Your task to perform on an android device: toggle airplane mode Image 0: 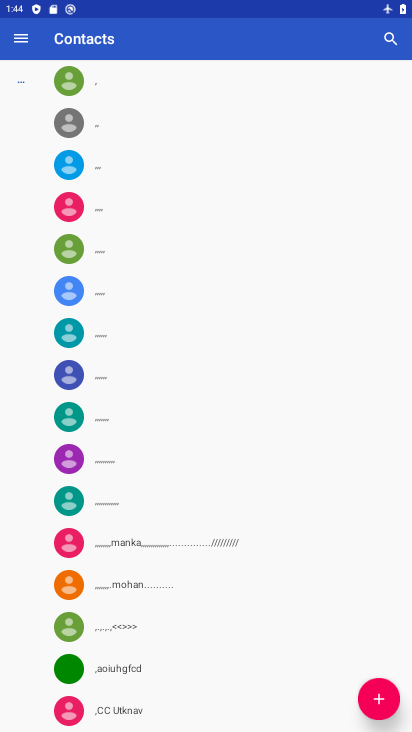
Step 0: press back button
Your task to perform on an android device: toggle airplane mode Image 1: 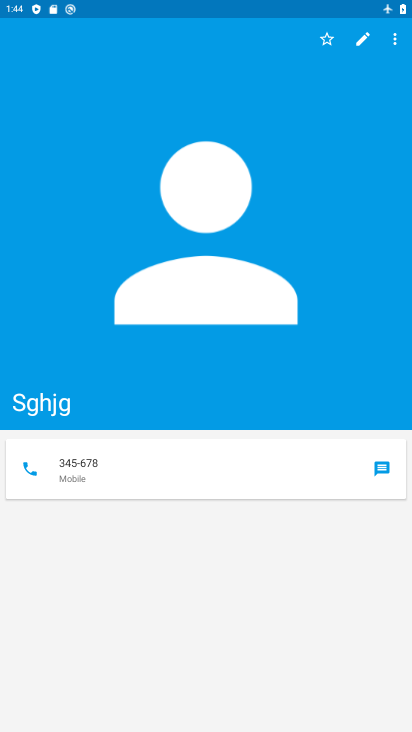
Step 1: press back button
Your task to perform on an android device: toggle airplane mode Image 2: 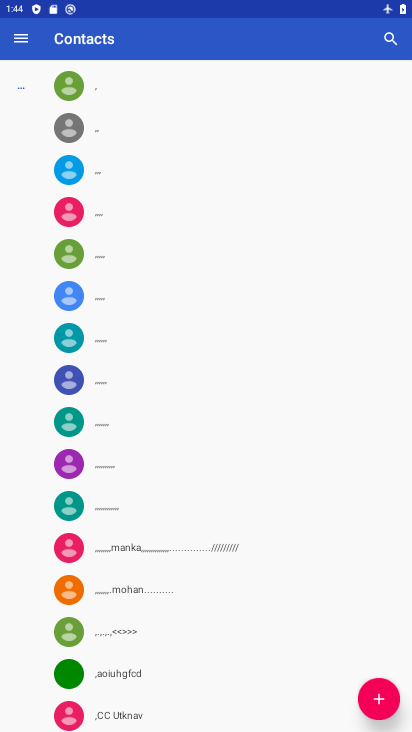
Step 2: press home button
Your task to perform on an android device: toggle airplane mode Image 3: 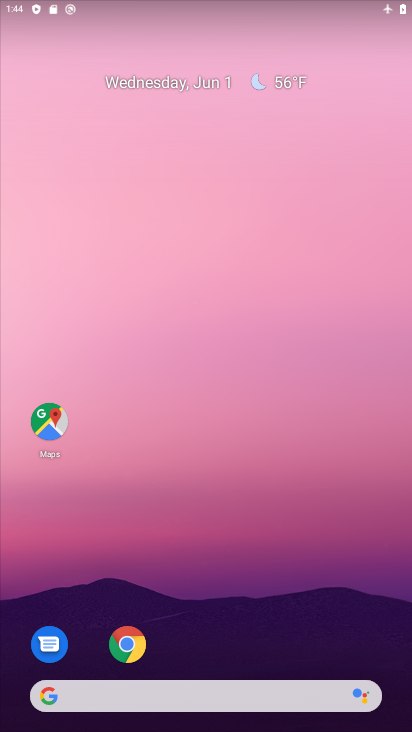
Step 3: drag from (278, 641) to (273, 40)
Your task to perform on an android device: toggle airplane mode Image 4: 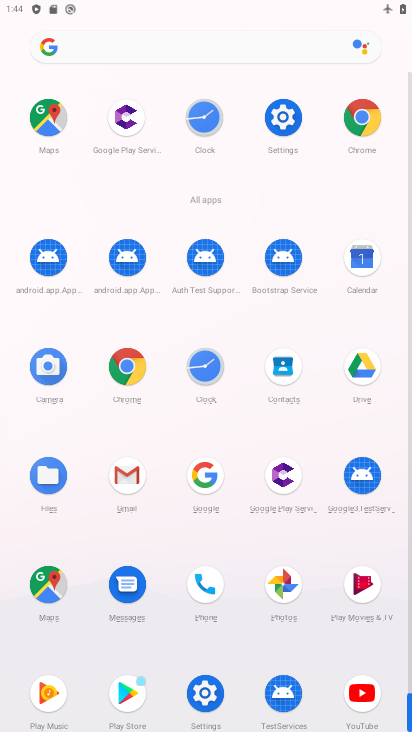
Step 4: click (202, 688)
Your task to perform on an android device: toggle airplane mode Image 5: 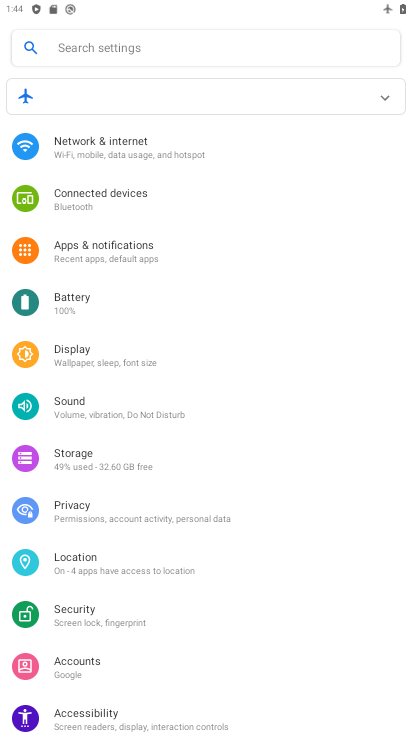
Step 5: click (169, 145)
Your task to perform on an android device: toggle airplane mode Image 6: 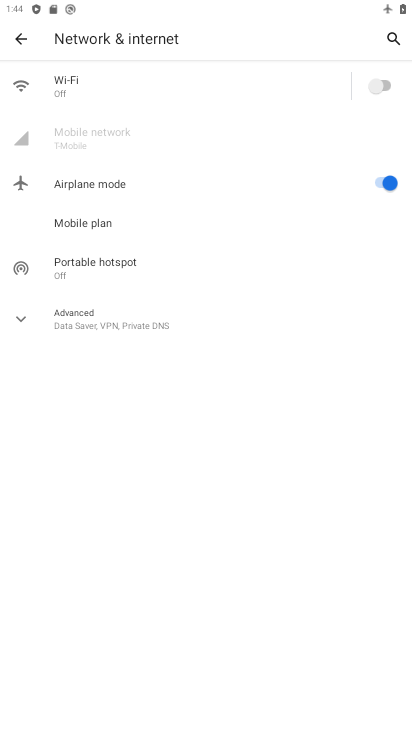
Step 6: click (387, 183)
Your task to perform on an android device: toggle airplane mode Image 7: 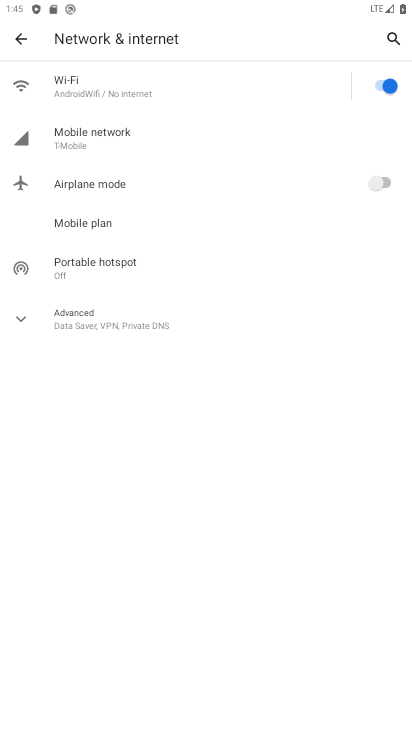
Step 7: click (22, 313)
Your task to perform on an android device: toggle airplane mode Image 8: 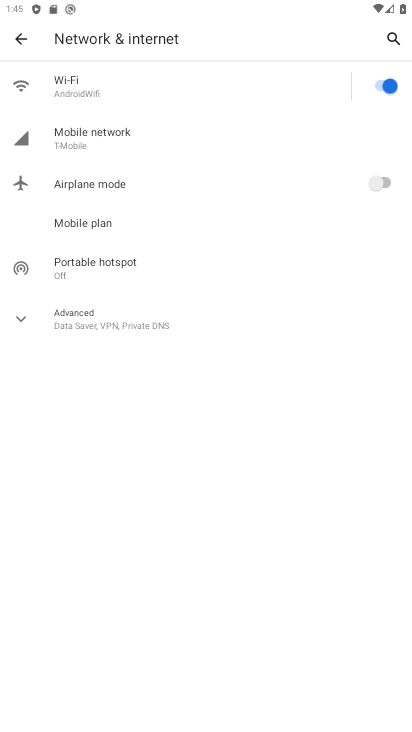
Step 8: click (25, 322)
Your task to perform on an android device: toggle airplane mode Image 9: 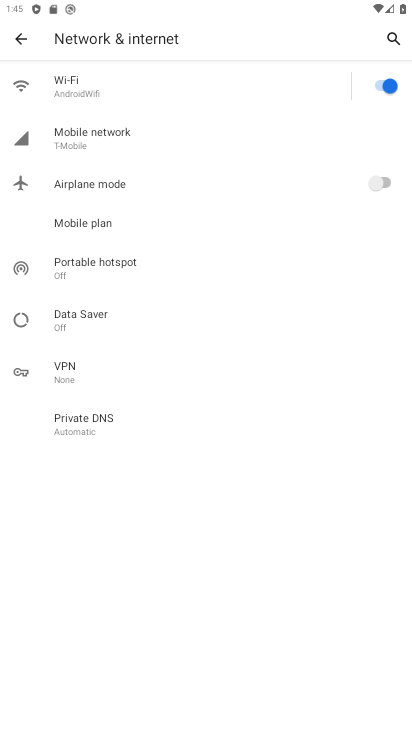
Step 9: click (374, 178)
Your task to perform on an android device: toggle airplane mode Image 10: 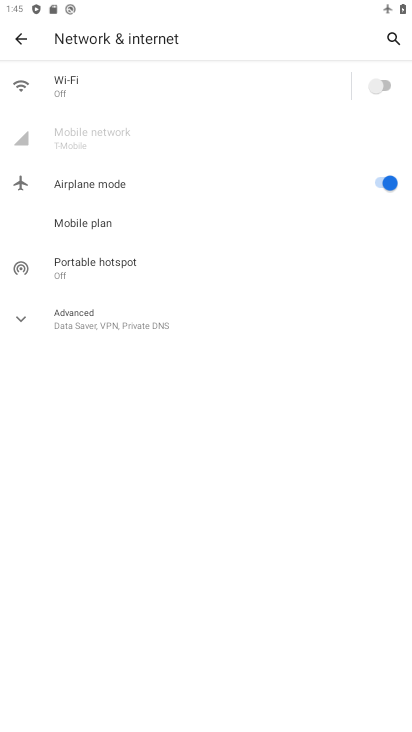
Step 10: task complete